Your task to perform on an android device: change the upload size in google photos Image 0: 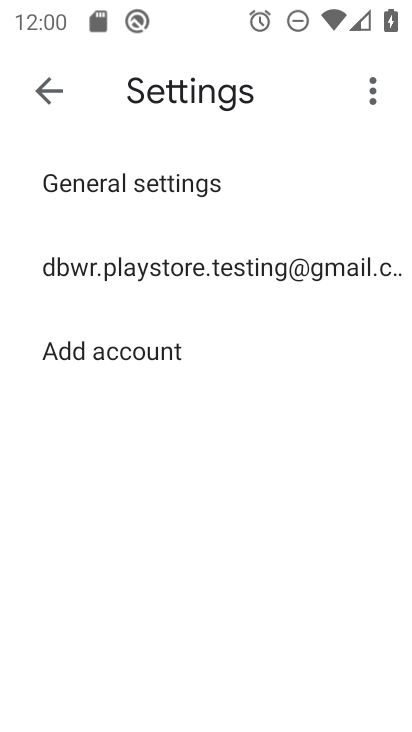
Step 0: press home button
Your task to perform on an android device: change the upload size in google photos Image 1: 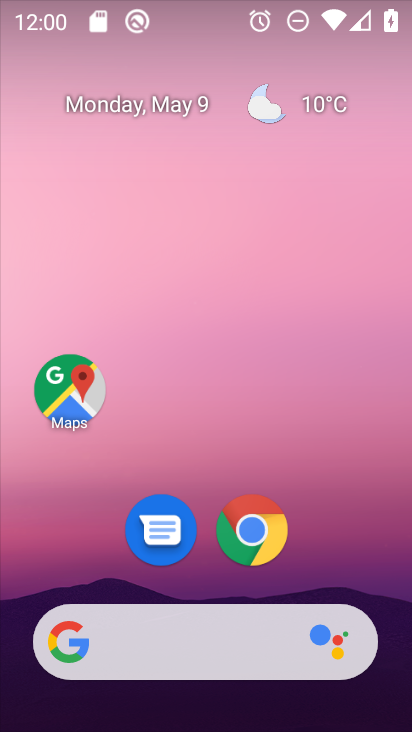
Step 1: drag from (217, 543) to (259, 53)
Your task to perform on an android device: change the upload size in google photos Image 2: 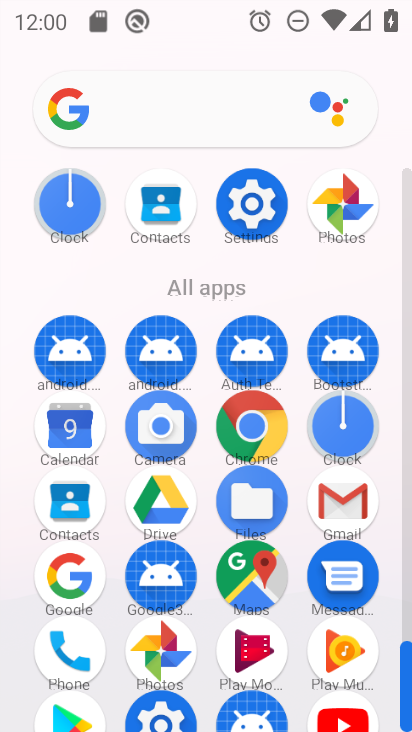
Step 2: click (350, 204)
Your task to perform on an android device: change the upload size in google photos Image 3: 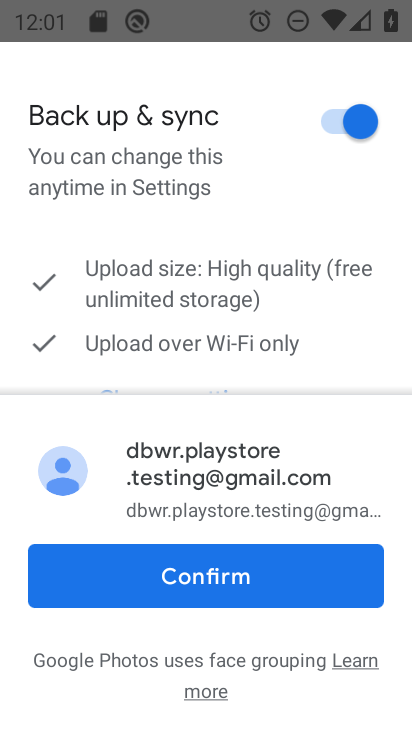
Step 3: click (214, 320)
Your task to perform on an android device: change the upload size in google photos Image 4: 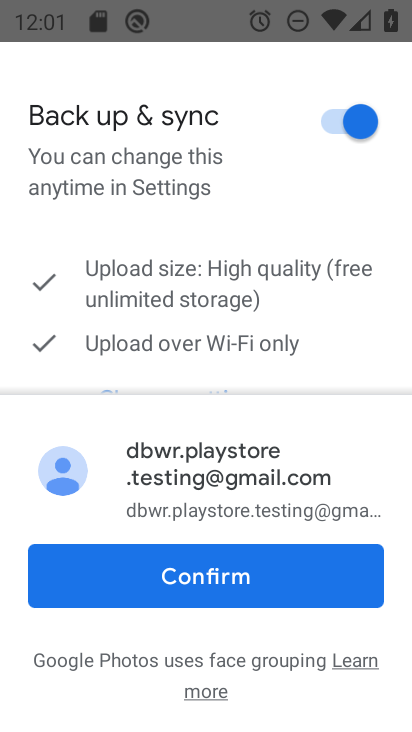
Step 4: click (246, 603)
Your task to perform on an android device: change the upload size in google photos Image 5: 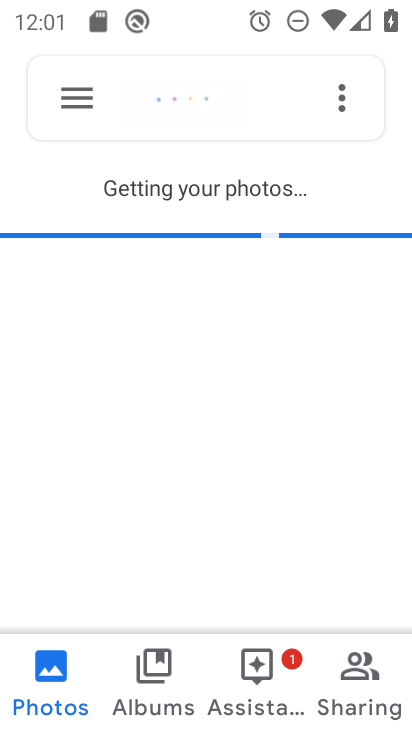
Step 5: click (85, 121)
Your task to perform on an android device: change the upload size in google photos Image 6: 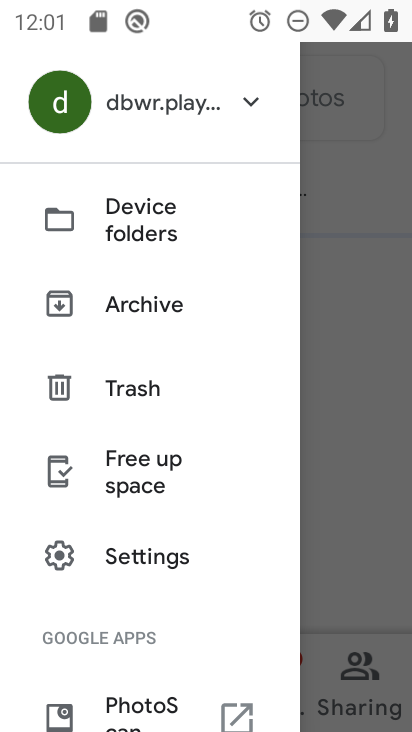
Step 6: click (111, 548)
Your task to perform on an android device: change the upload size in google photos Image 7: 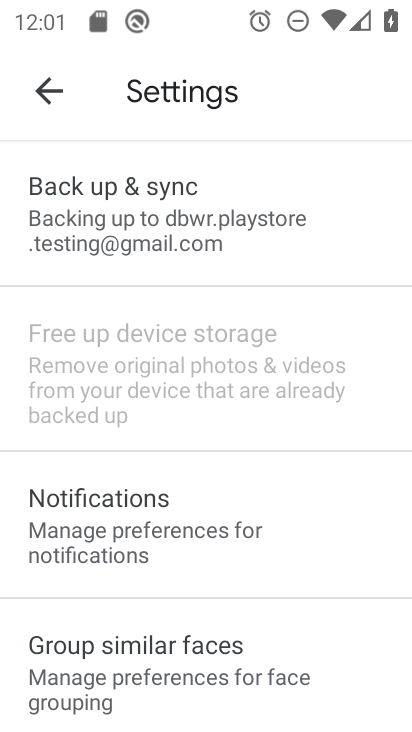
Step 7: click (238, 230)
Your task to perform on an android device: change the upload size in google photos Image 8: 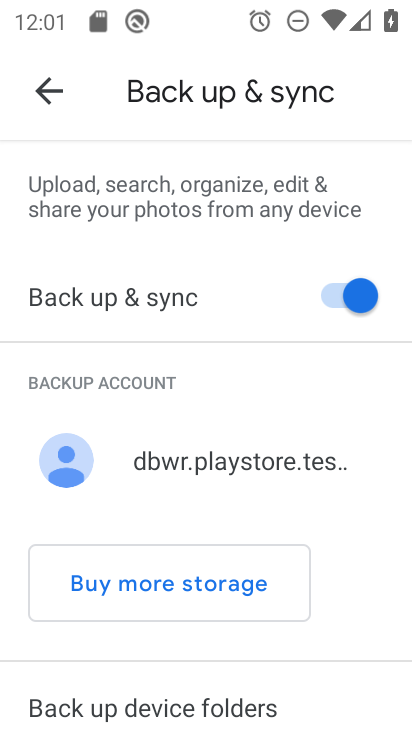
Step 8: drag from (164, 488) to (213, 166)
Your task to perform on an android device: change the upload size in google photos Image 9: 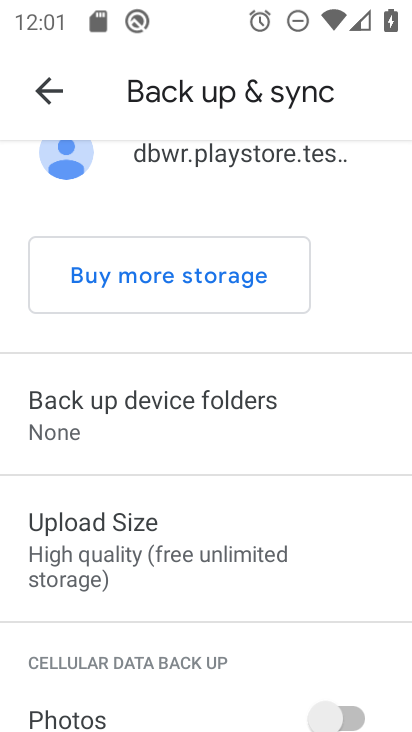
Step 9: click (261, 501)
Your task to perform on an android device: change the upload size in google photos Image 10: 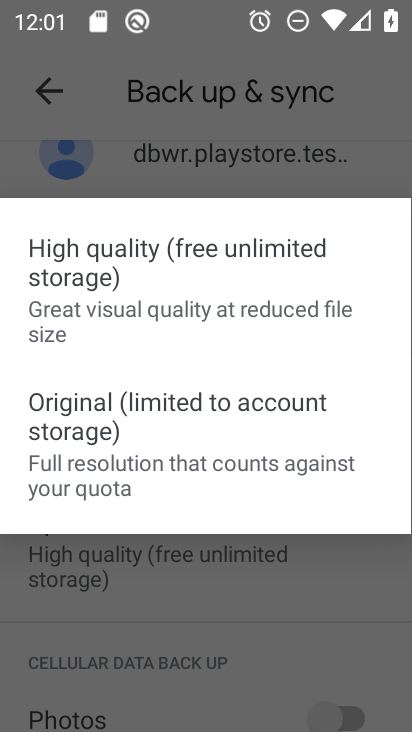
Step 10: click (200, 408)
Your task to perform on an android device: change the upload size in google photos Image 11: 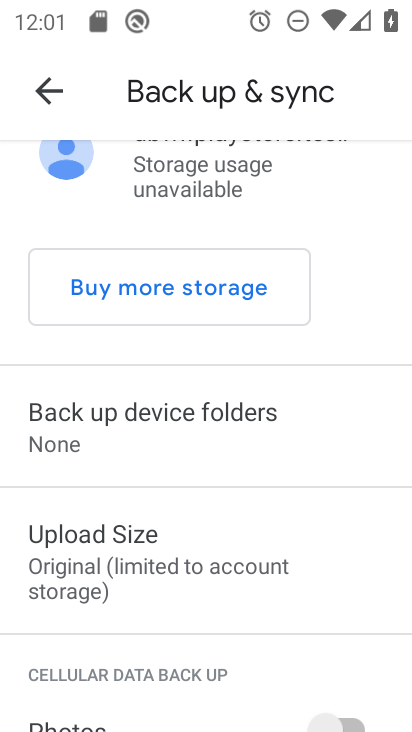
Step 11: task complete